Your task to perform on an android device: Open the map Image 0: 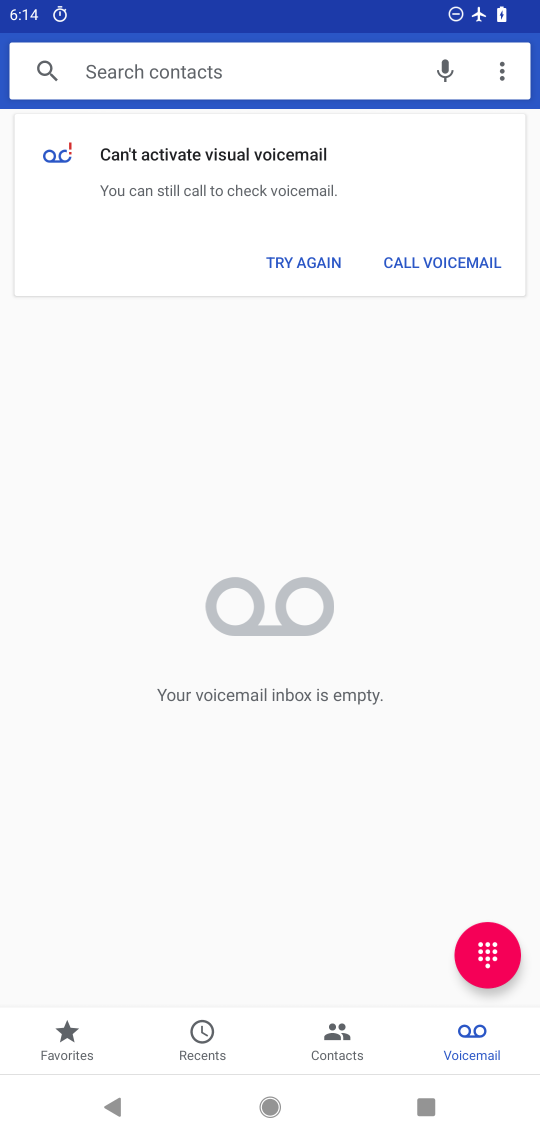
Step 0: press home button
Your task to perform on an android device: Open the map Image 1: 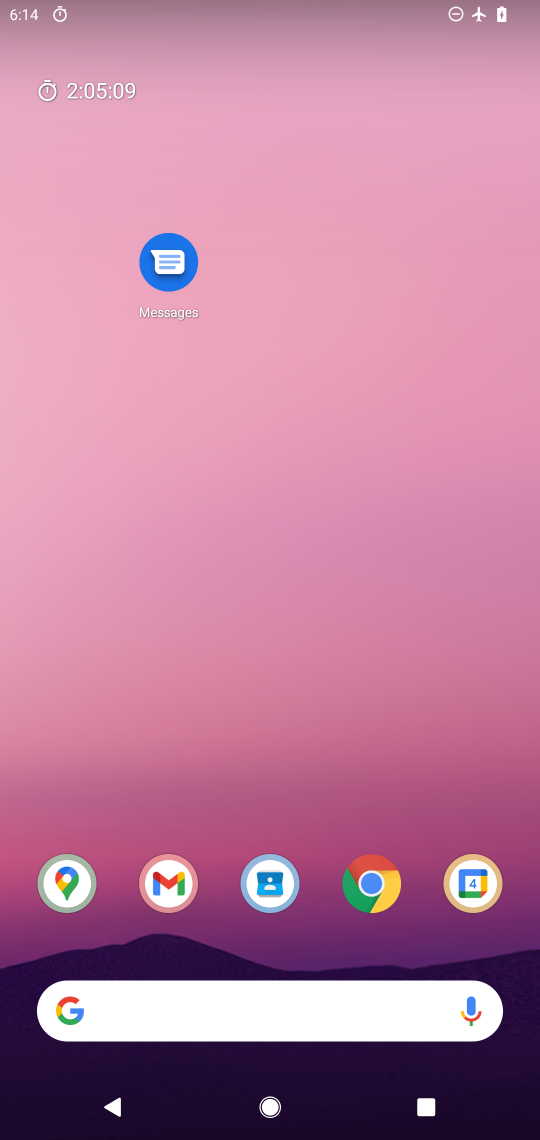
Step 1: drag from (304, 959) to (292, 37)
Your task to perform on an android device: Open the map Image 2: 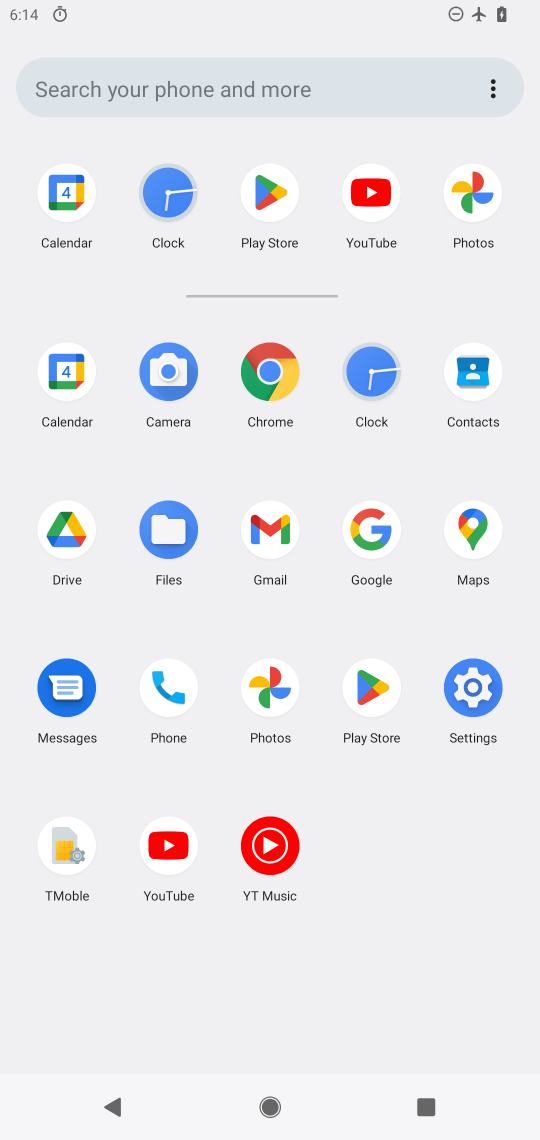
Step 2: click (469, 539)
Your task to perform on an android device: Open the map Image 3: 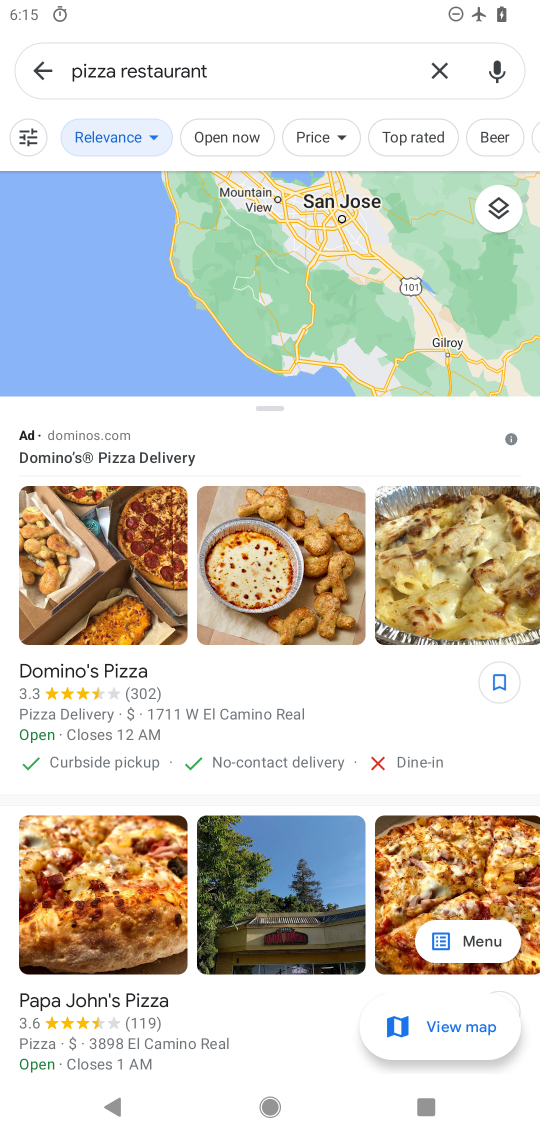
Step 3: task complete